Your task to perform on an android device: What's on my calendar today? Image 0: 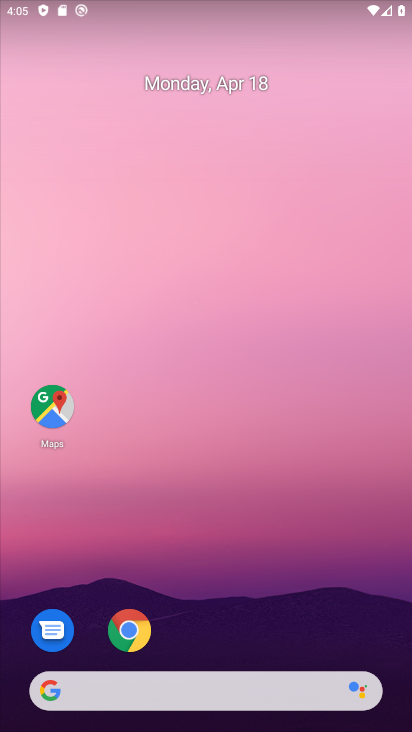
Step 0: drag from (218, 580) to (307, 8)
Your task to perform on an android device: What's on my calendar today? Image 1: 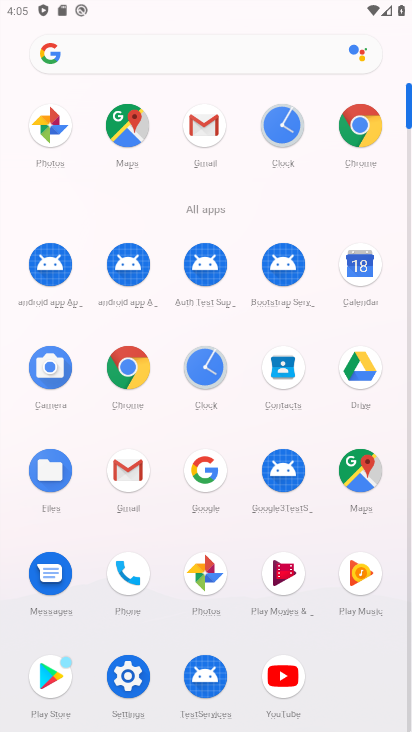
Step 1: click (367, 271)
Your task to perform on an android device: What's on my calendar today? Image 2: 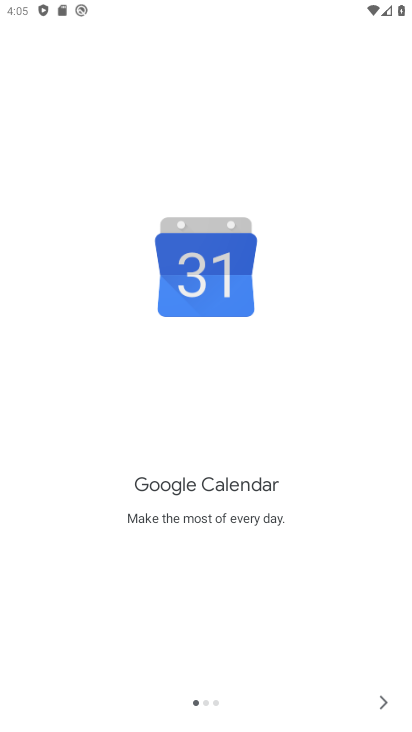
Step 2: click (385, 698)
Your task to perform on an android device: What's on my calendar today? Image 3: 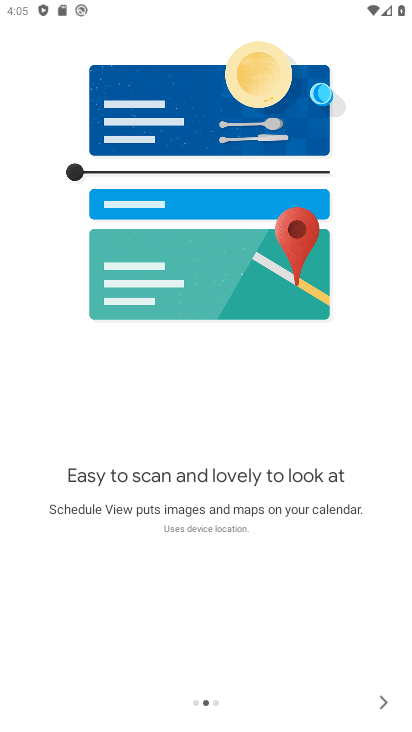
Step 3: click (385, 698)
Your task to perform on an android device: What's on my calendar today? Image 4: 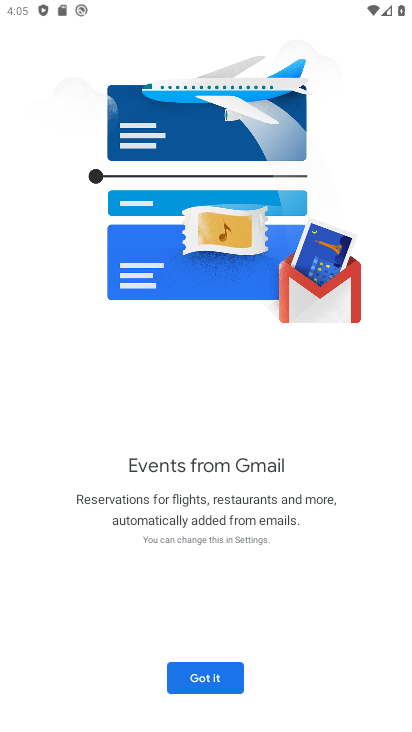
Step 4: click (212, 684)
Your task to perform on an android device: What's on my calendar today? Image 5: 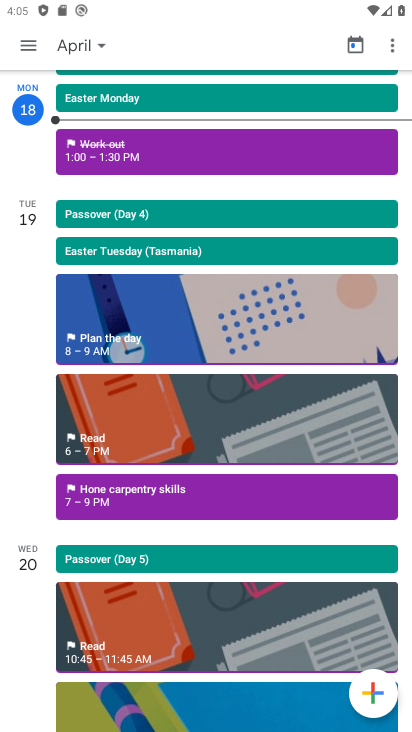
Step 5: click (96, 42)
Your task to perform on an android device: What's on my calendar today? Image 6: 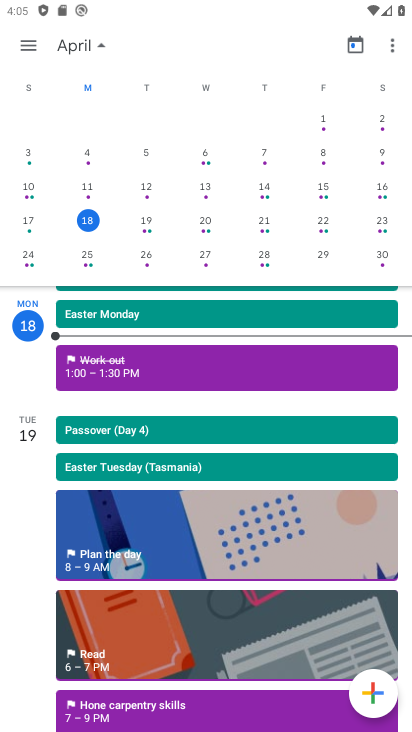
Step 6: click (89, 224)
Your task to perform on an android device: What's on my calendar today? Image 7: 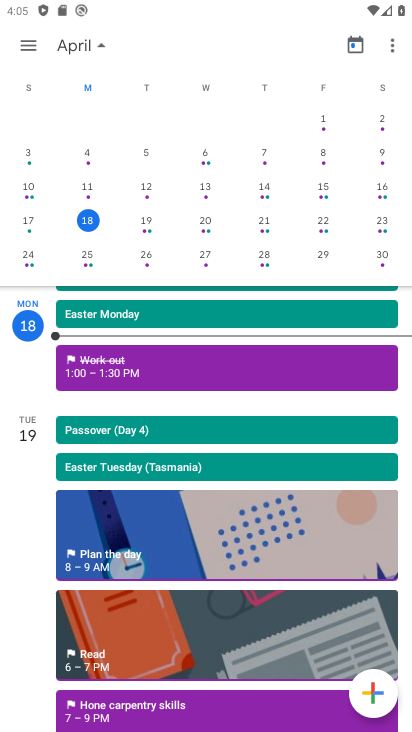
Step 7: click (89, 224)
Your task to perform on an android device: What's on my calendar today? Image 8: 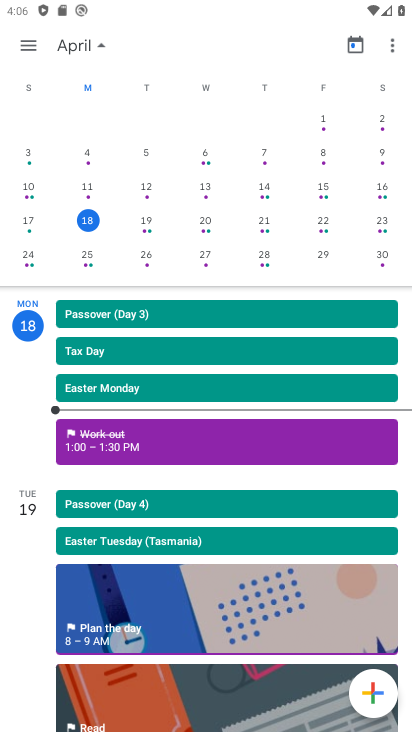
Step 8: click (86, 220)
Your task to perform on an android device: What's on my calendar today? Image 9: 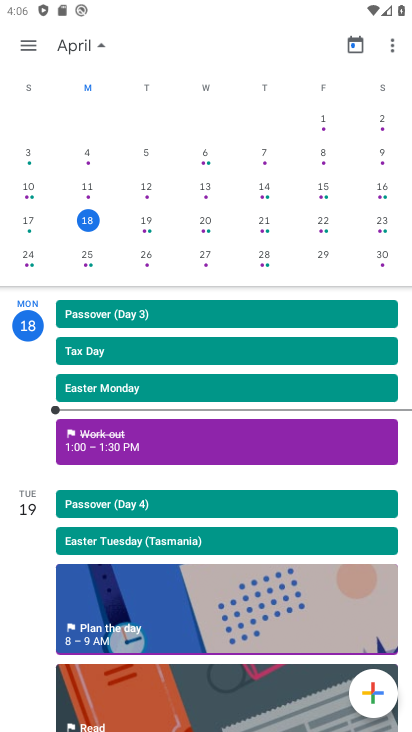
Step 9: click (85, 222)
Your task to perform on an android device: What's on my calendar today? Image 10: 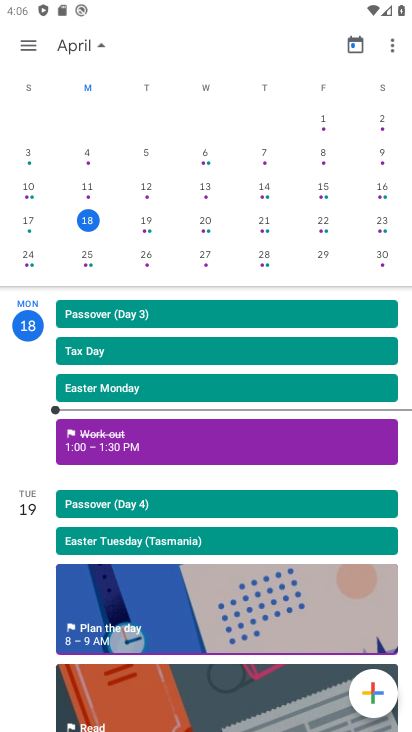
Step 10: task complete